Your task to perform on an android device: Show me productivity apps on the Play Store Image 0: 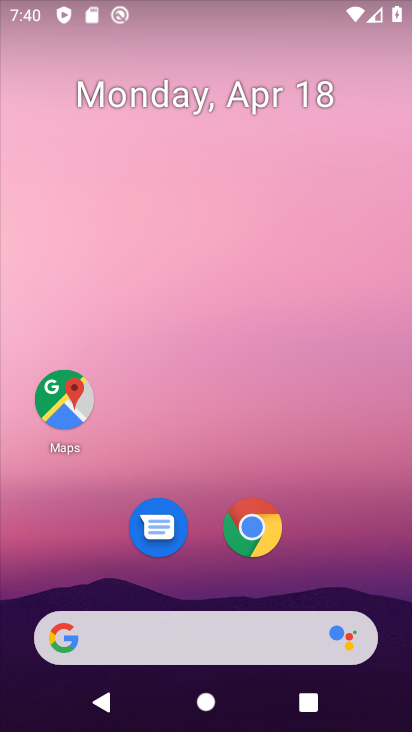
Step 0: drag from (377, 558) to (376, 117)
Your task to perform on an android device: Show me productivity apps on the Play Store Image 1: 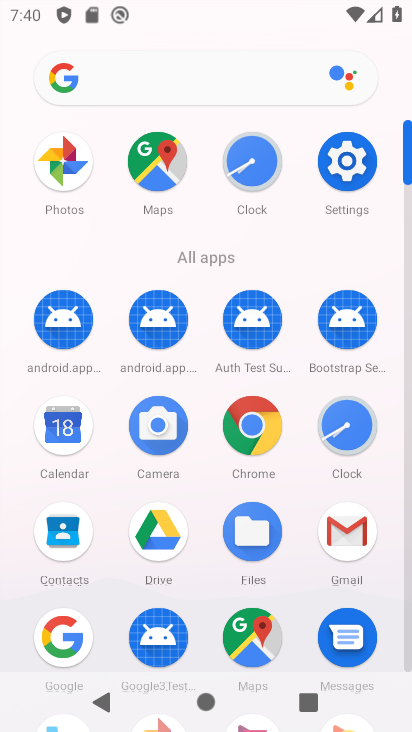
Step 1: drag from (300, 491) to (297, 215)
Your task to perform on an android device: Show me productivity apps on the Play Store Image 2: 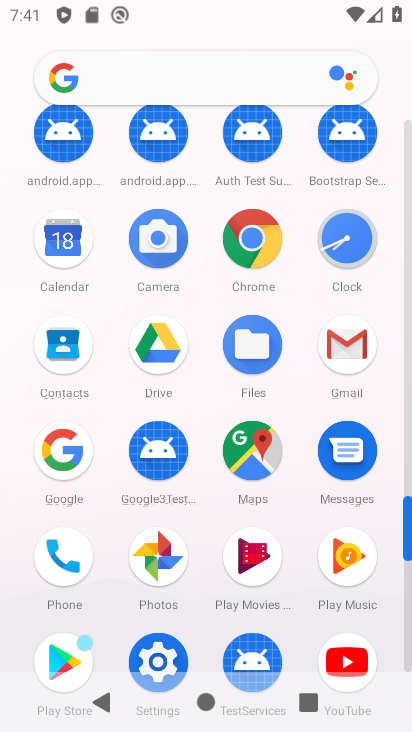
Step 2: click (62, 650)
Your task to perform on an android device: Show me productivity apps on the Play Store Image 3: 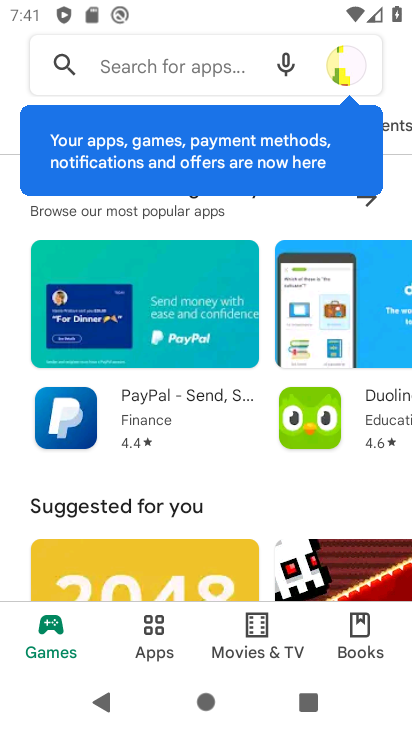
Step 3: click (159, 623)
Your task to perform on an android device: Show me productivity apps on the Play Store Image 4: 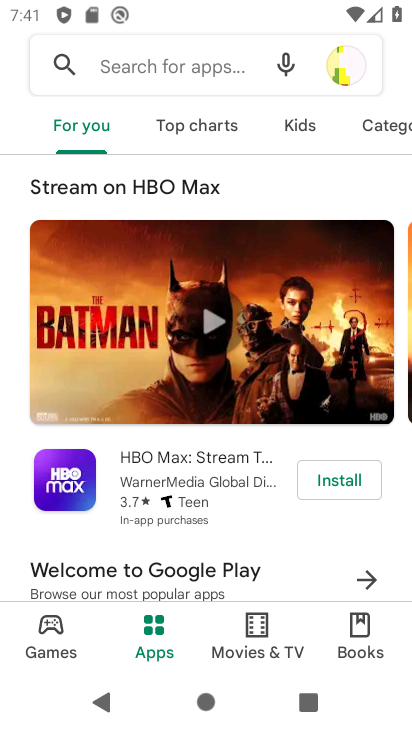
Step 4: click (389, 124)
Your task to perform on an android device: Show me productivity apps on the Play Store Image 5: 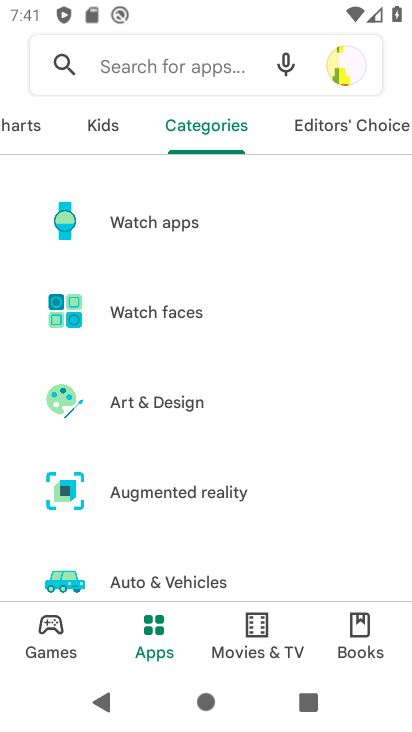
Step 5: drag from (283, 480) to (292, 262)
Your task to perform on an android device: Show me productivity apps on the Play Store Image 6: 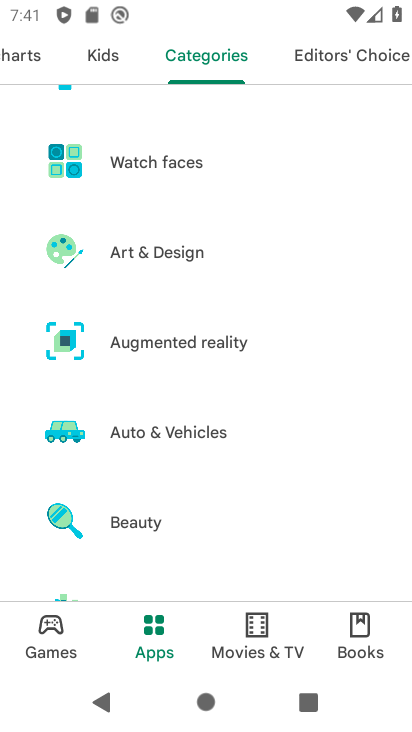
Step 6: drag from (260, 460) to (293, 224)
Your task to perform on an android device: Show me productivity apps on the Play Store Image 7: 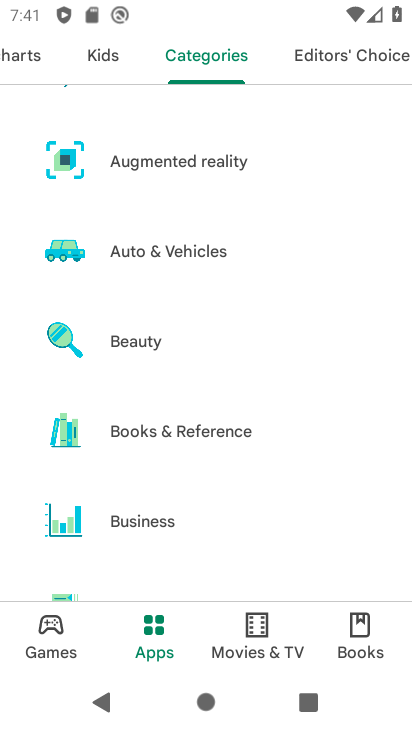
Step 7: drag from (313, 512) to (339, 176)
Your task to perform on an android device: Show me productivity apps on the Play Store Image 8: 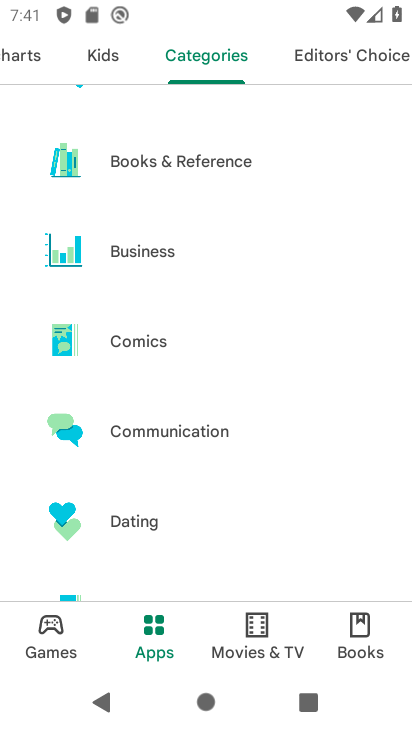
Step 8: drag from (308, 487) to (353, 148)
Your task to perform on an android device: Show me productivity apps on the Play Store Image 9: 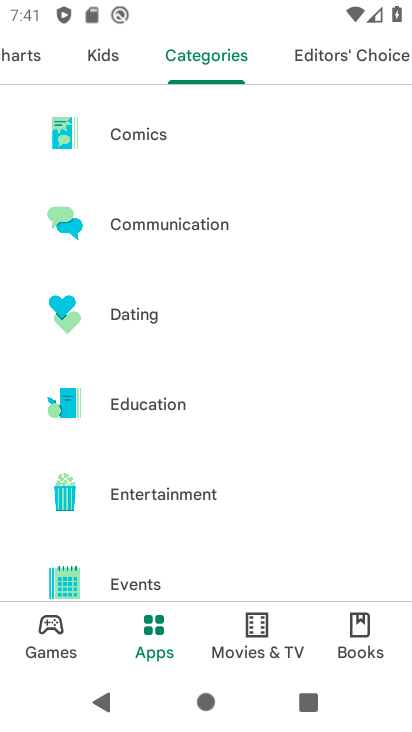
Step 9: drag from (322, 492) to (337, 188)
Your task to perform on an android device: Show me productivity apps on the Play Store Image 10: 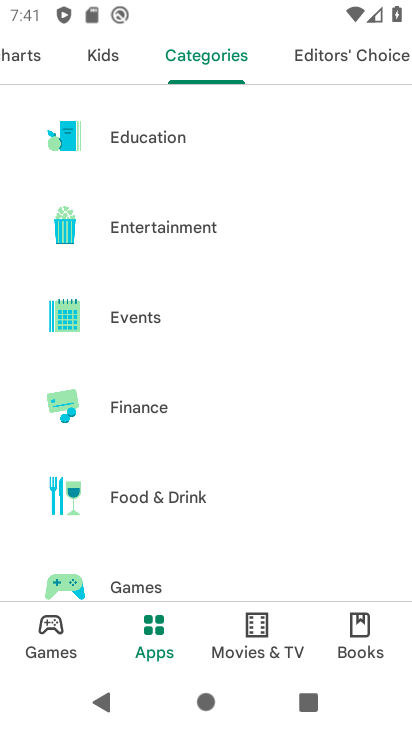
Step 10: drag from (296, 505) to (314, 157)
Your task to perform on an android device: Show me productivity apps on the Play Store Image 11: 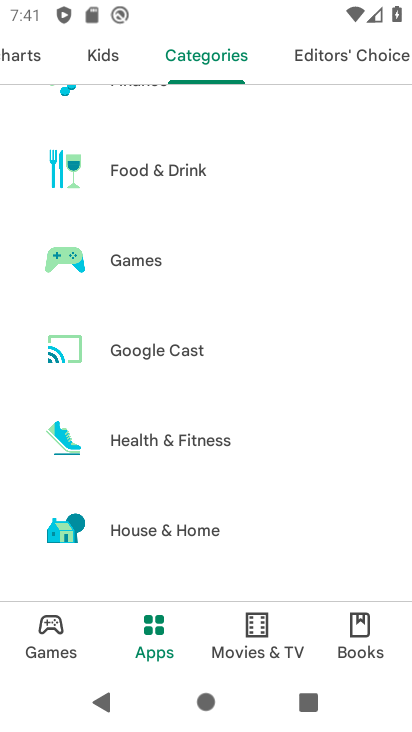
Step 11: drag from (309, 531) to (350, 119)
Your task to perform on an android device: Show me productivity apps on the Play Store Image 12: 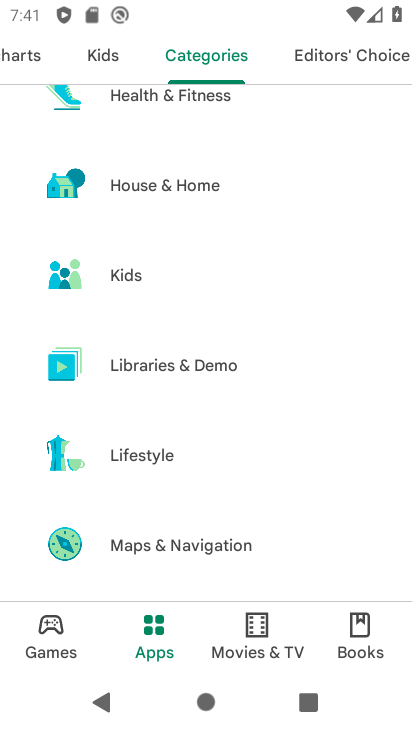
Step 12: drag from (349, 498) to (356, 147)
Your task to perform on an android device: Show me productivity apps on the Play Store Image 13: 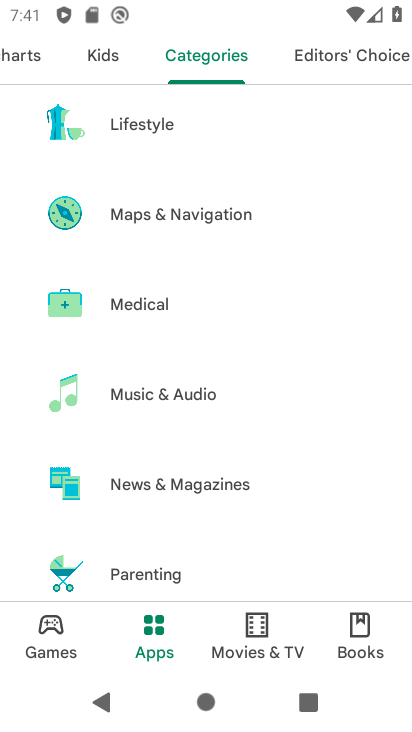
Step 13: drag from (320, 499) to (350, 132)
Your task to perform on an android device: Show me productivity apps on the Play Store Image 14: 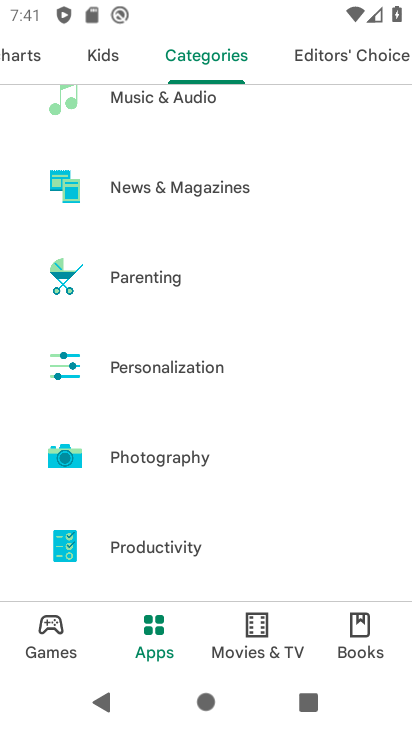
Step 14: click (134, 548)
Your task to perform on an android device: Show me productivity apps on the Play Store Image 15: 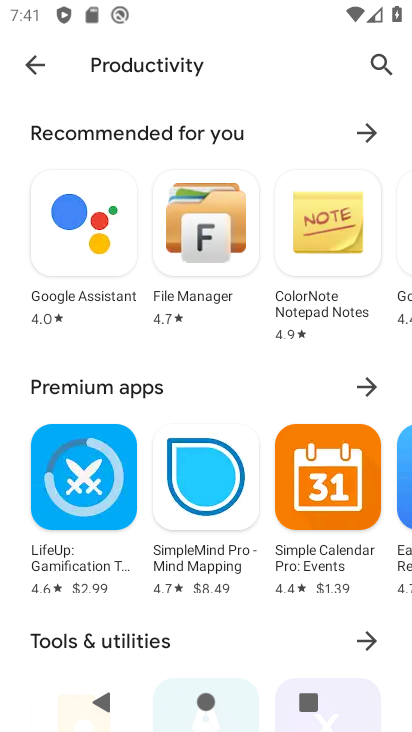
Step 15: task complete